Your task to perform on an android device: What's the news in Brazil? Image 0: 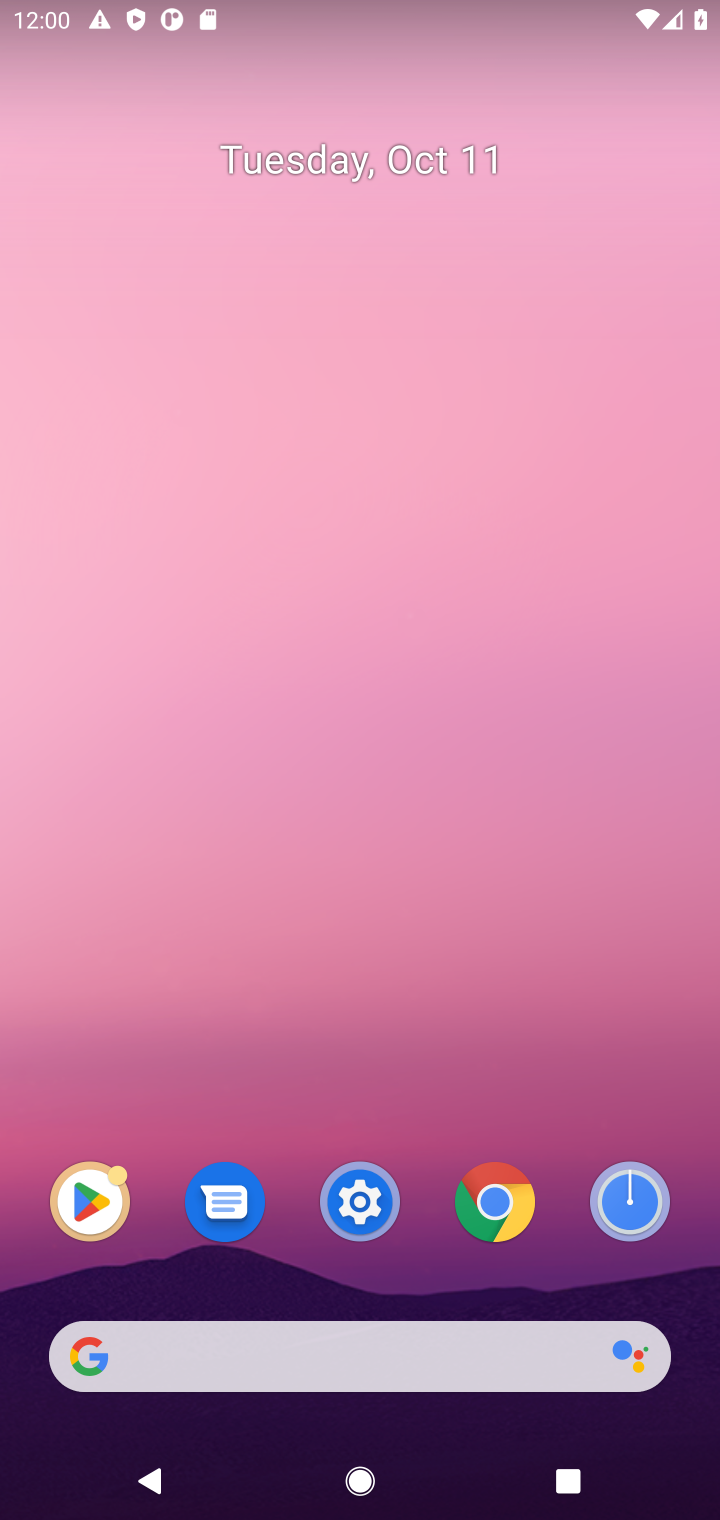
Step 0: click (83, 1355)
Your task to perform on an android device: What's the news in Brazil? Image 1: 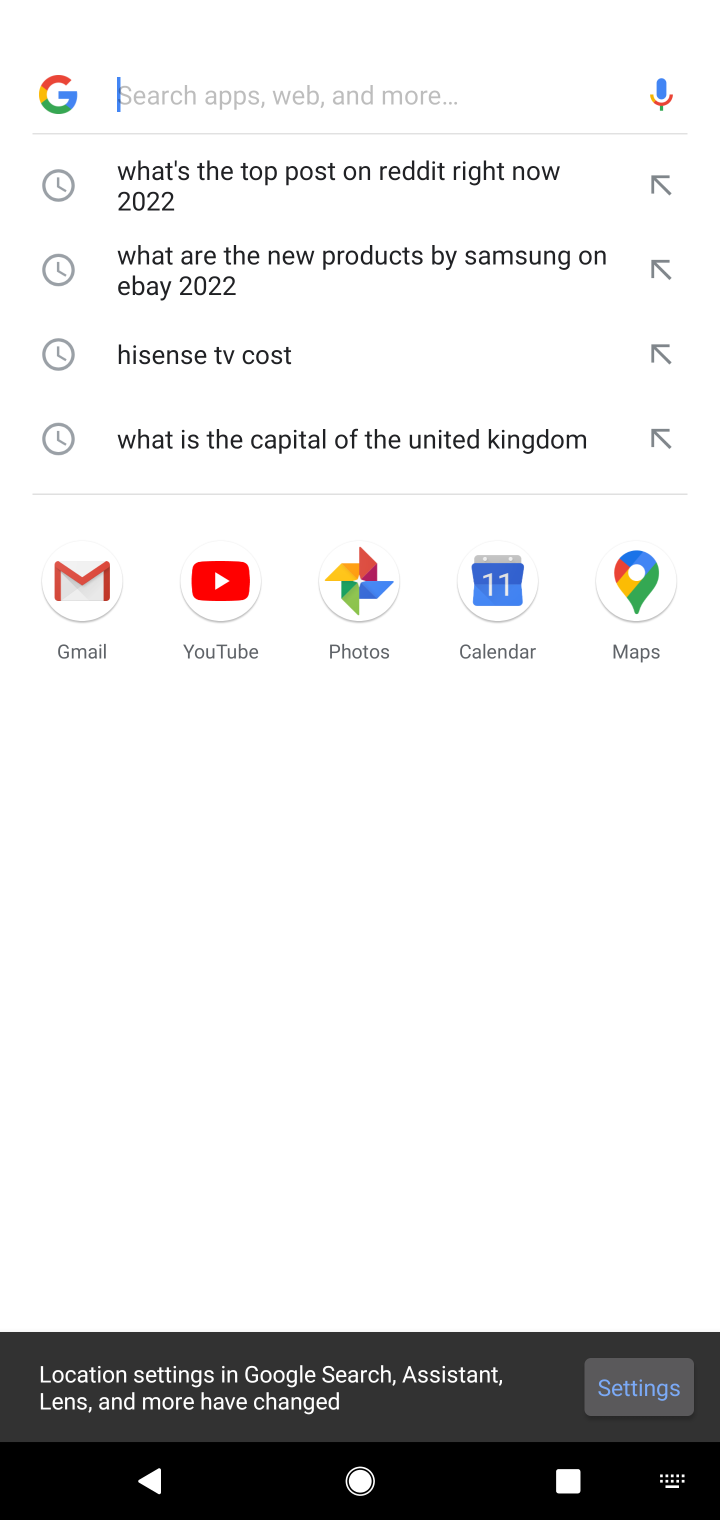
Step 1: click (313, 91)
Your task to perform on an android device: What's the news in Brazil? Image 2: 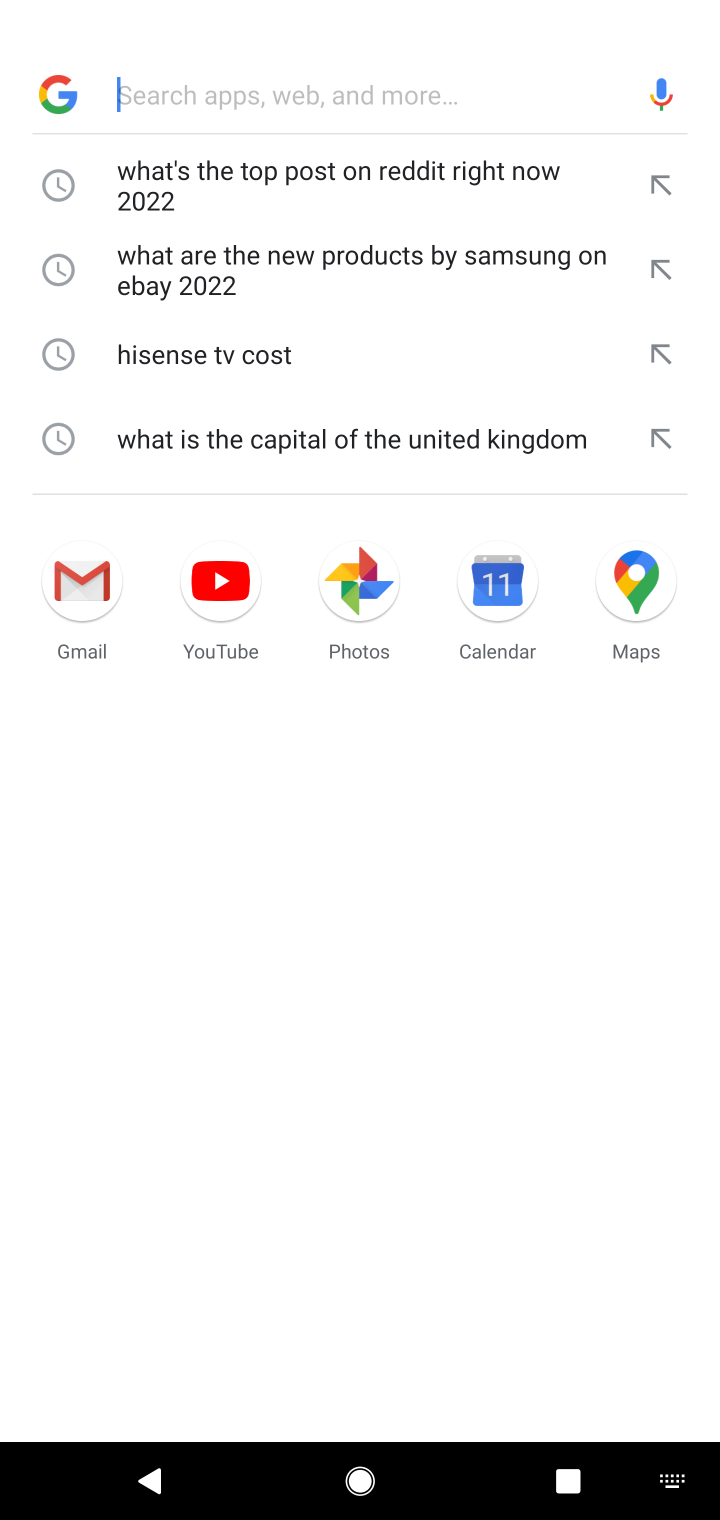
Step 2: type "What's the news in Brazil?"
Your task to perform on an android device: What's the news in Brazil? Image 3: 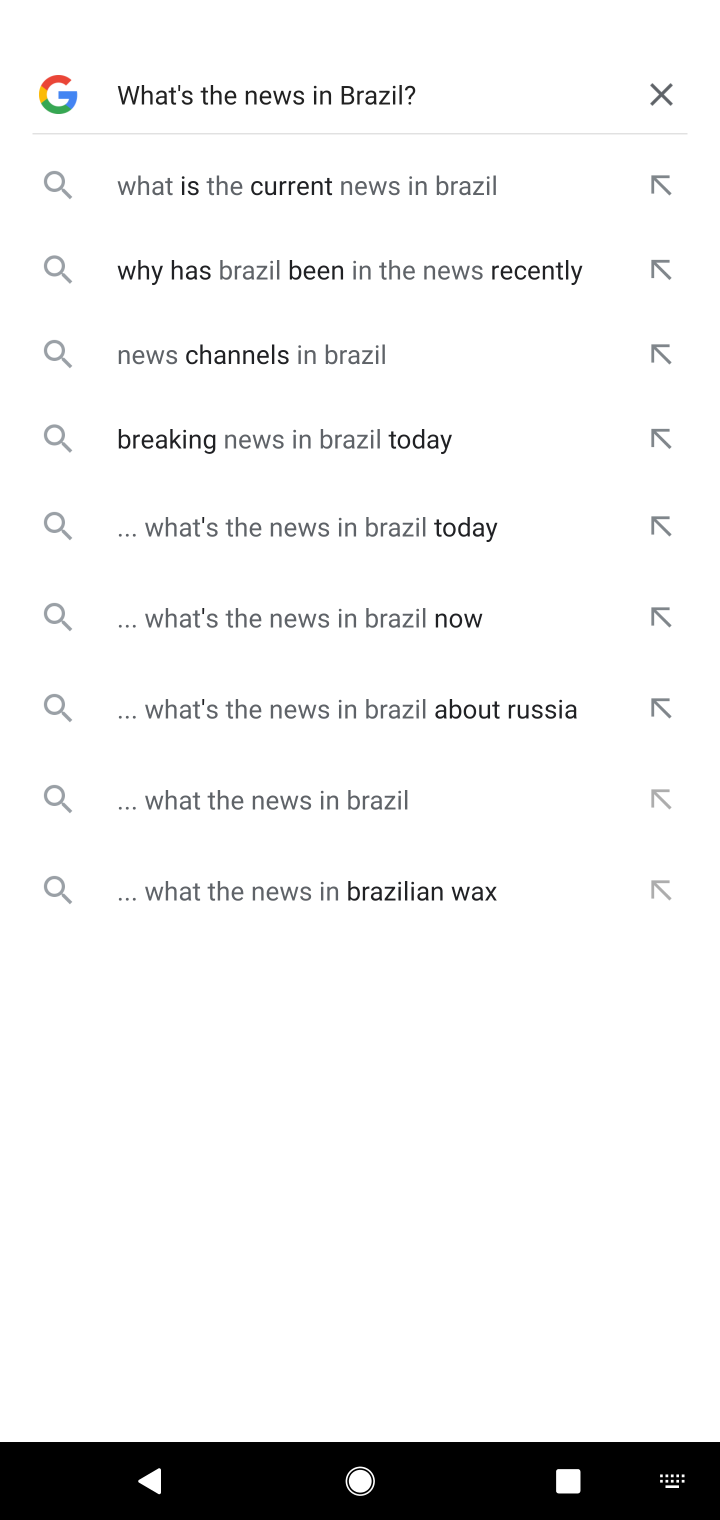
Step 3: click (377, 536)
Your task to perform on an android device: What's the news in Brazil? Image 4: 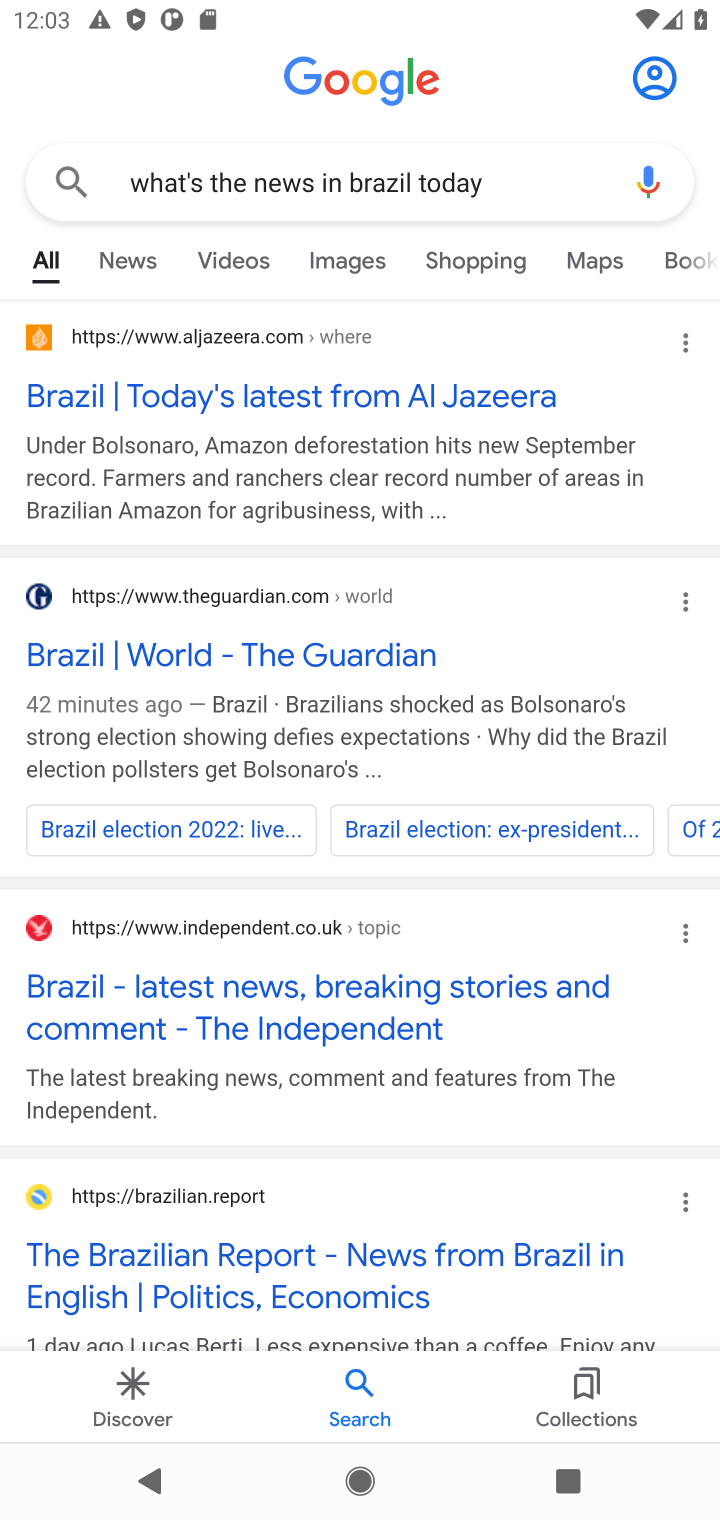
Step 4: task complete